Your task to perform on an android device: delete browsing data in the chrome app Image 0: 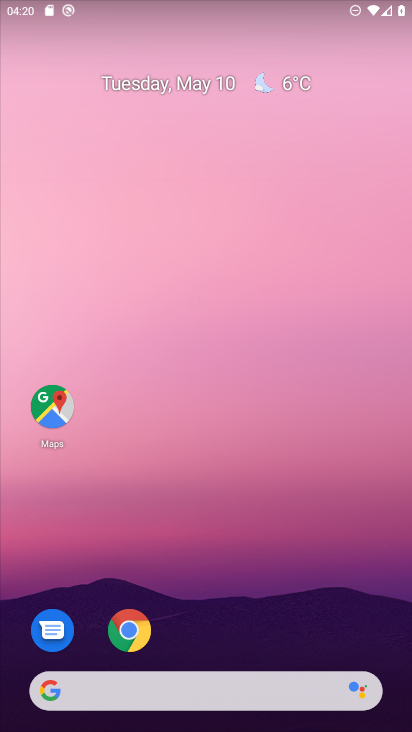
Step 0: click (129, 635)
Your task to perform on an android device: delete browsing data in the chrome app Image 1: 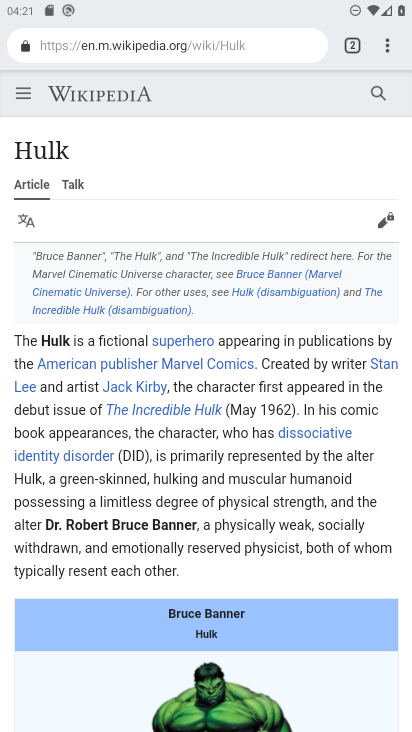
Step 1: click (386, 40)
Your task to perform on an android device: delete browsing data in the chrome app Image 2: 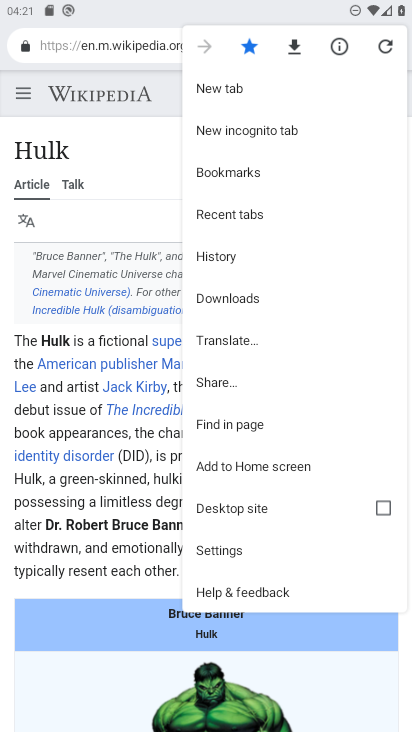
Step 2: click (231, 259)
Your task to perform on an android device: delete browsing data in the chrome app Image 3: 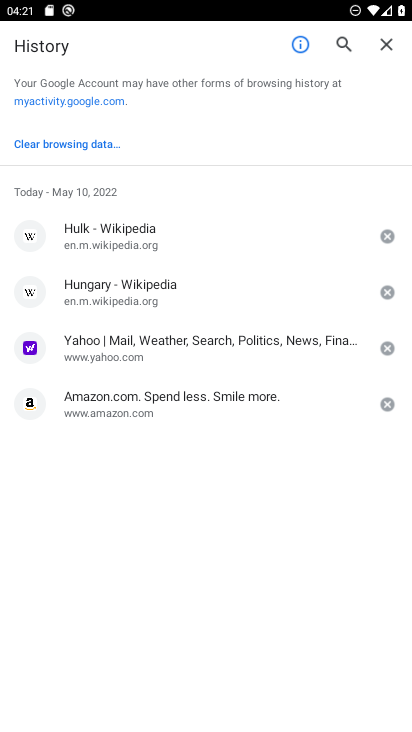
Step 3: click (89, 138)
Your task to perform on an android device: delete browsing data in the chrome app Image 4: 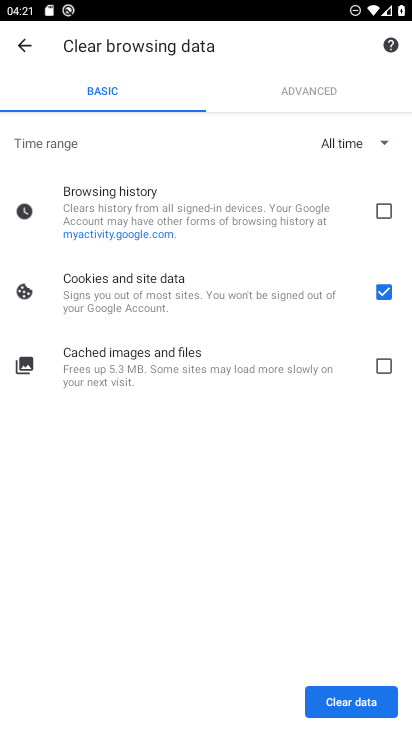
Step 4: click (353, 694)
Your task to perform on an android device: delete browsing data in the chrome app Image 5: 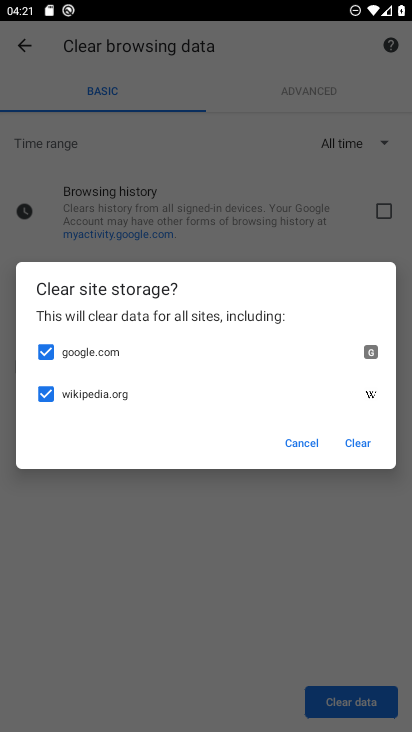
Step 5: click (355, 448)
Your task to perform on an android device: delete browsing data in the chrome app Image 6: 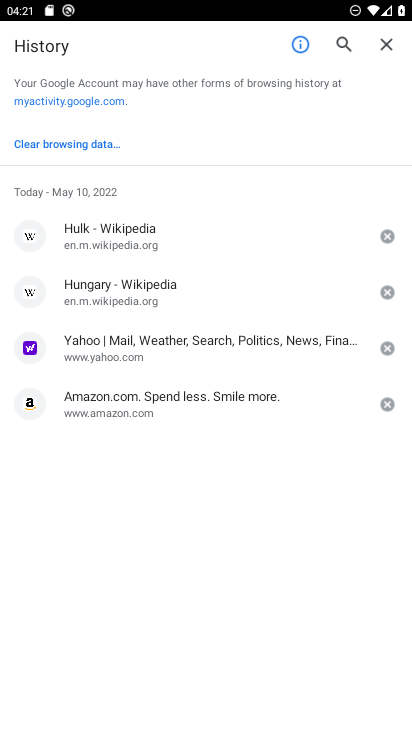
Step 6: task complete